Your task to perform on an android device: Do I have any events tomorrow? Image 0: 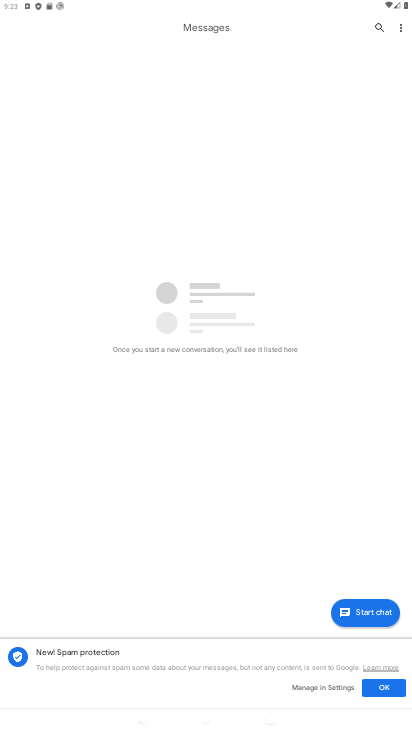
Step 0: press home button
Your task to perform on an android device: Do I have any events tomorrow? Image 1: 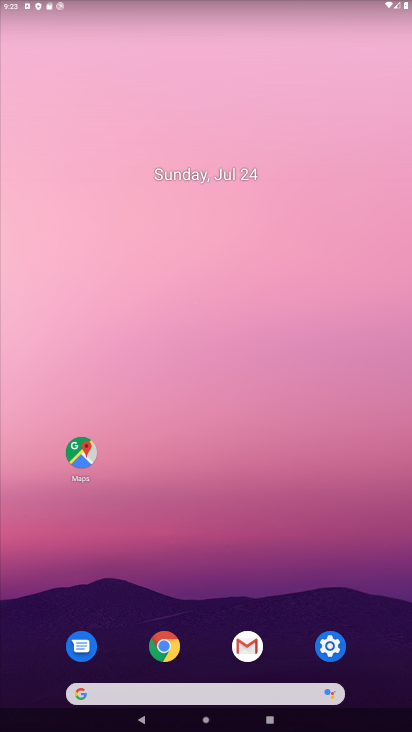
Step 1: click (195, 701)
Your task to perform on an android device: Do I have any events tomorrow? Image 2: 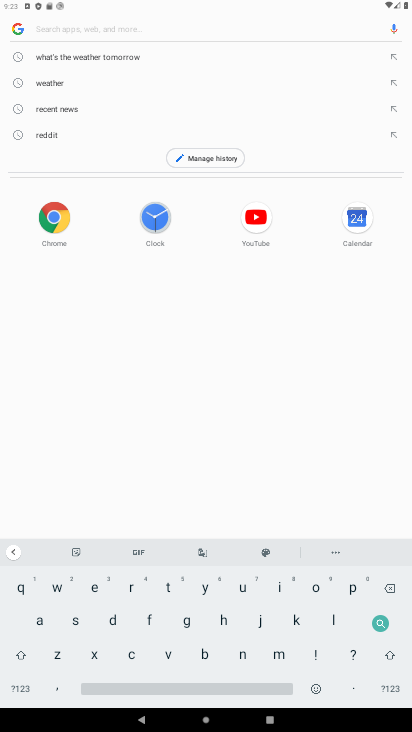
Step 2: click (349, 230)
Your task to perform on an android device: Do I have any events tomorrow? Image 3: 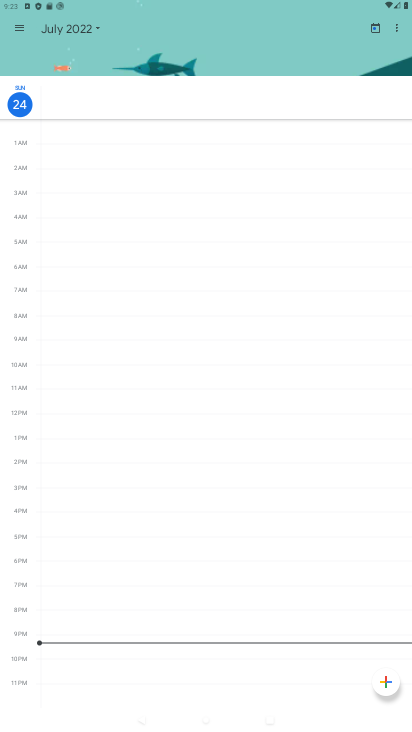
Step 3: click (15, 33)
Your task to perform on an android device: Do I have any events tomorrow? Image 4: 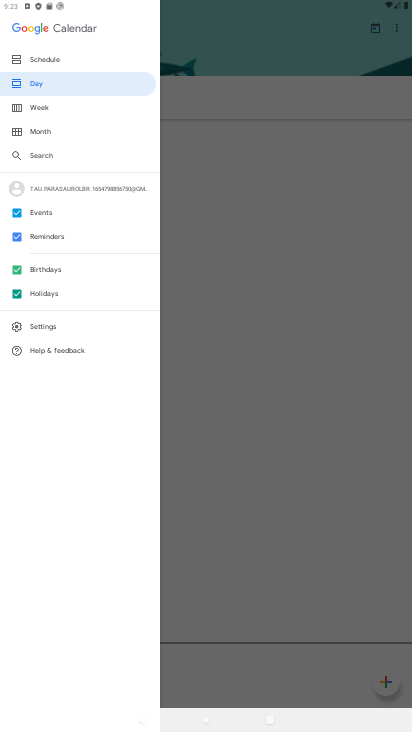
Step 4: click (47, 130)
Your task to perform on an android device: Do I have any events tomorrow? Image 5: 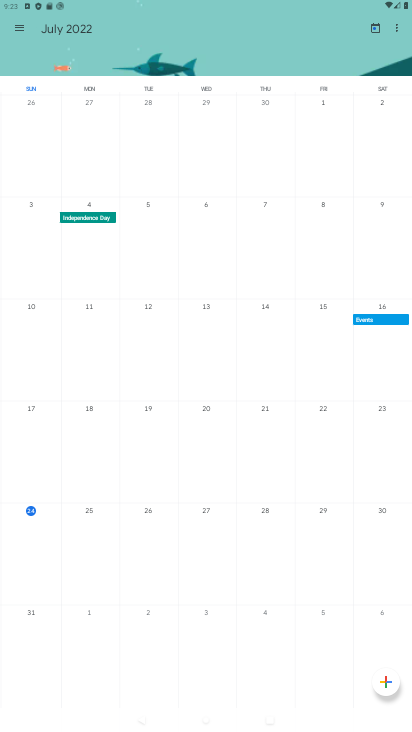
Step 5: click (75, 514)
Your task to perform on an android device: Do I have any events tomorrow? Image 6: 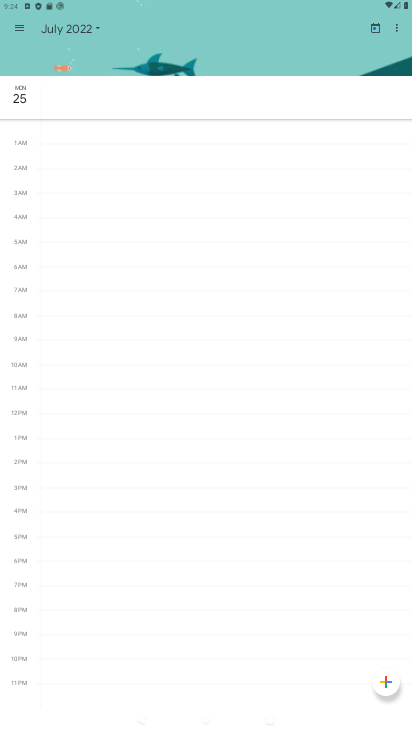
Step 6: task complete